Your task to perform on an android device: change notifications settings Image 0: 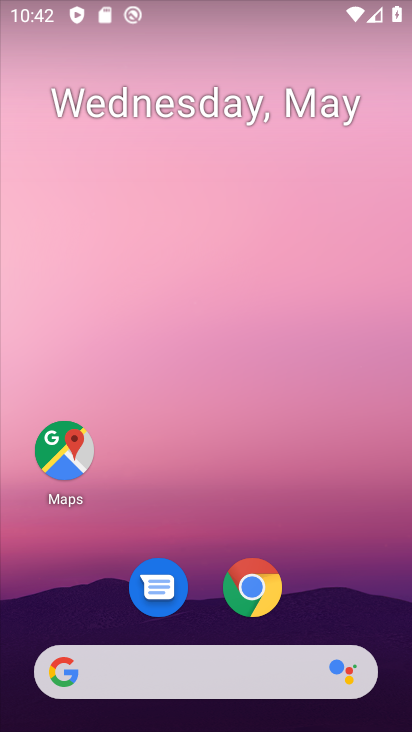
Step 0: drag from (294, 588) to (409, 167)
Your task to perform on an android device: change notifications settings Image 1: 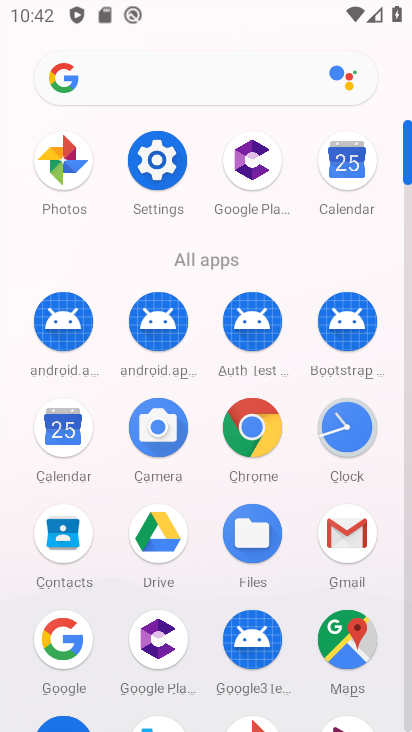
Step 1: click (155, 174)
Your task to perform on an android device: change notifications settings Image 2: 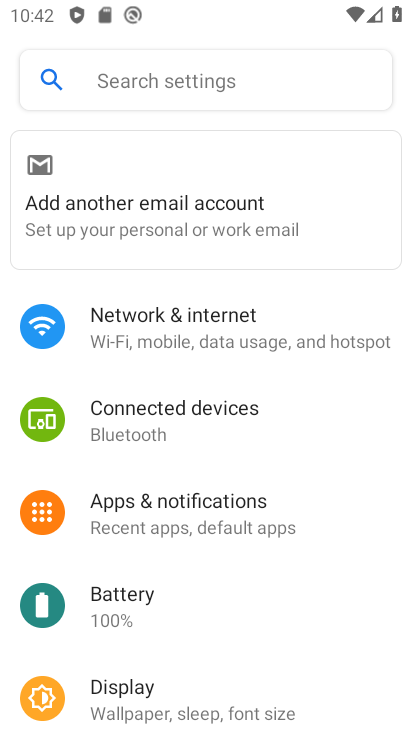
Step 2: click (185, 531)
Your task to perform on an android device: change notifications settings Image 3: 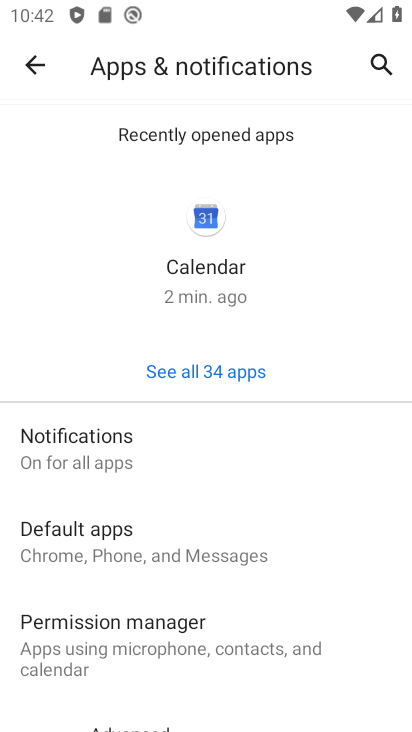
Step 3: click (91, 456)
Your task to perform on an android device: change notifications settings Image 4: 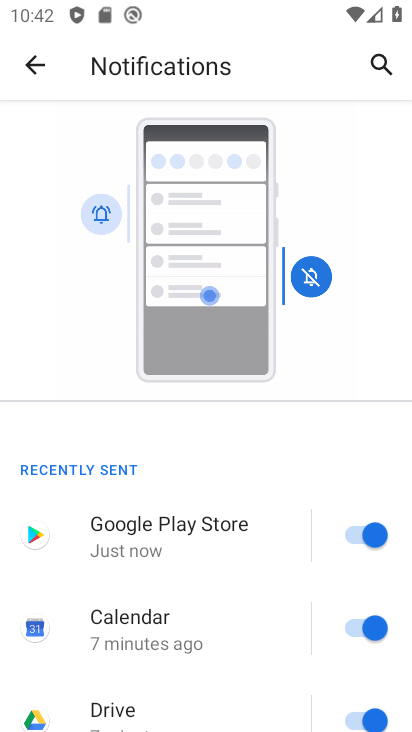
Step 4: drag from (158, 671) to (256, 343)
Your task to perform on an android device: change notifications settings Image 5: 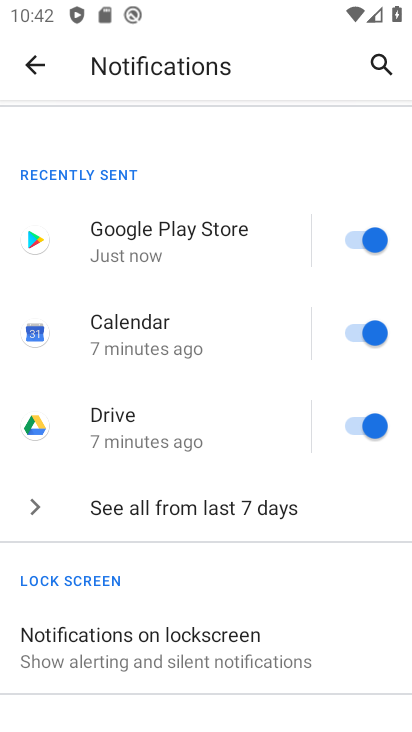
Step 5: drag from (233, 640) to (228, 326)
Your task to perform on an android device: change notifications settings Image 6: 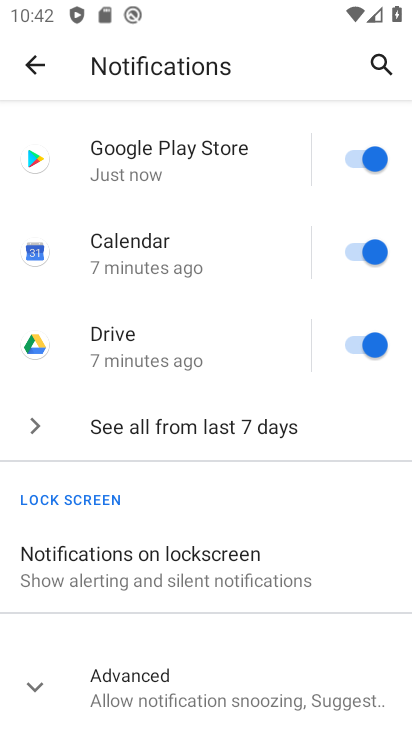
Step 6: click (93, 564)
Your task to perform on an android device: change notifications settings Image 7: 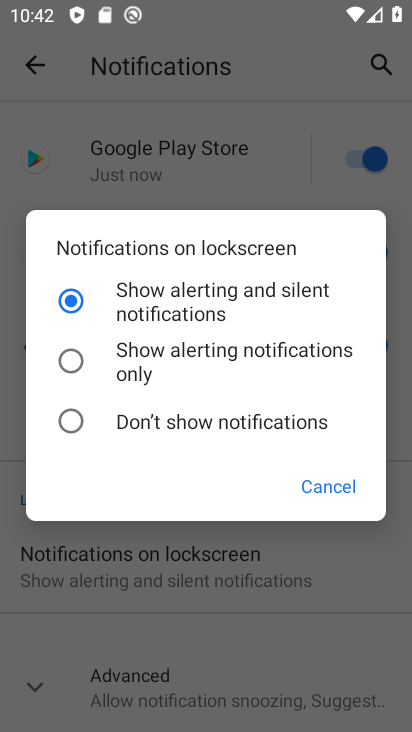
Step 7: click (213, 433)
Your task to perform on an android device: change notifications settings Image 8: 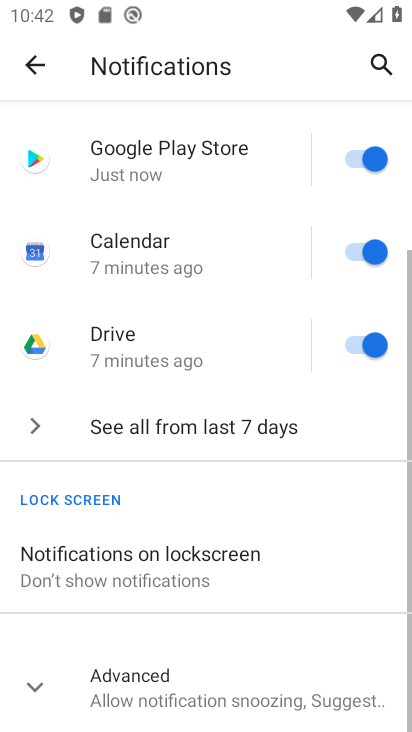
Step 8: task complete